Your task to perform on an android device: Search for vegetarian restaurants on Maps Image 0: 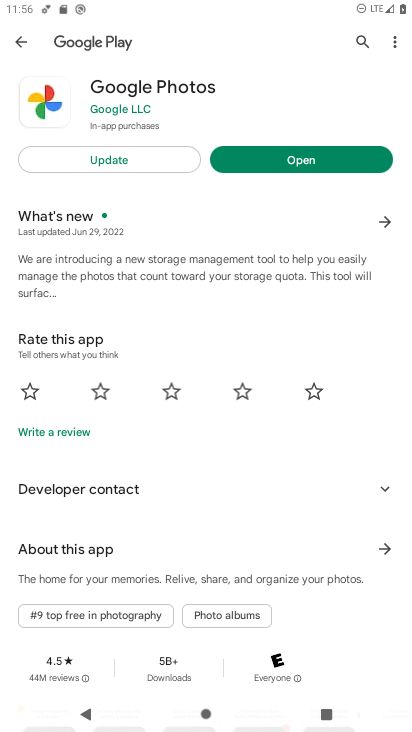
Step 0: press home button
Your task to perform on an android device: Search for vegetarian restaurants on Maps Image 1: 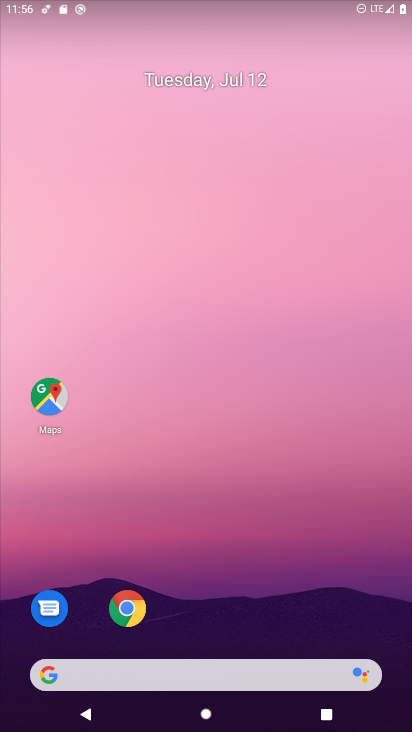
Step 1: click (47, 397)
Your task to perform on an android device: Search for vegetarian restaurants on Maps Image 2: 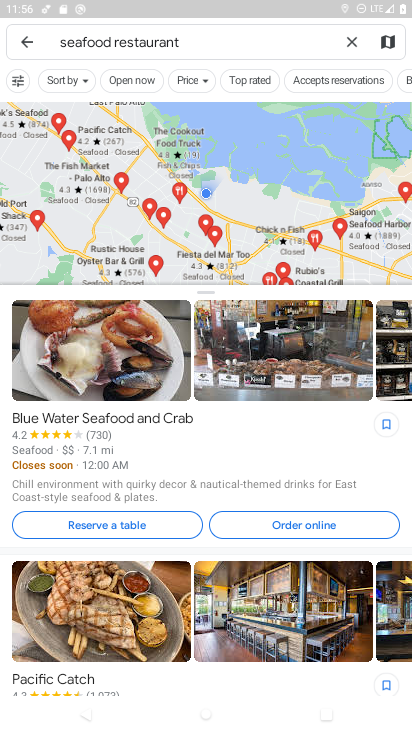
Step 2: click (354, 44)
Your task to perform on an android device: Search for vegetarian restaurants on Maps Image 3: 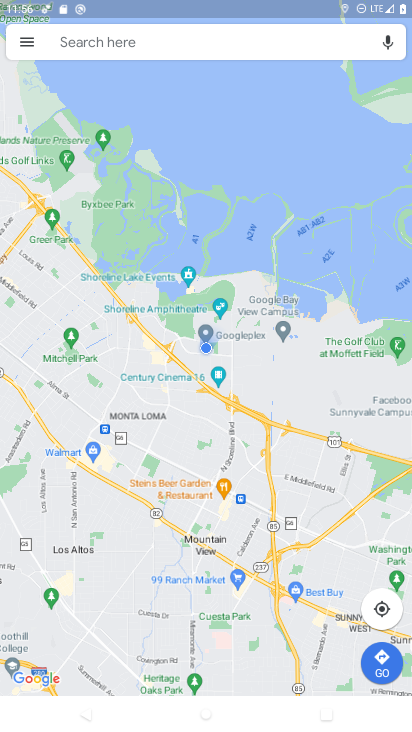
Step 3: click (175, 43)
Your task to perform on an android device: Search for vegetarian restaurants on Maps Image 4: 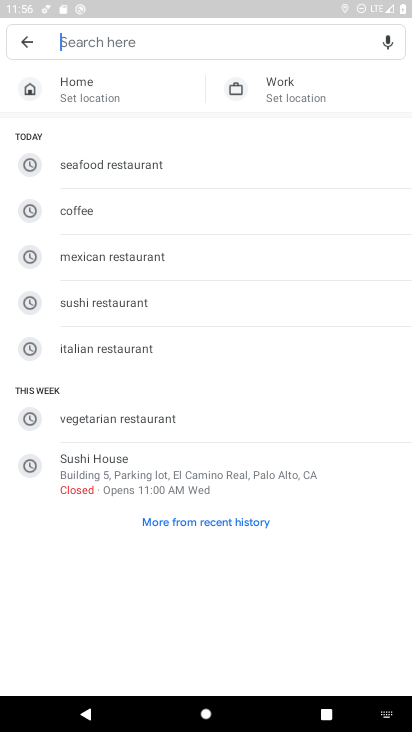
Step 4: click (245, 411)
Your task to perform on an android device: Search for vegetarian restaurants on Maps Image 5: 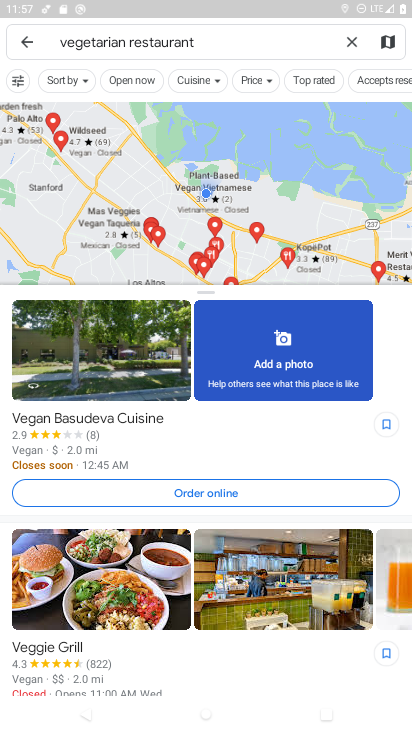
Step 5: task complete